Your task to perform on an android device: change keyboard looks Image 0: 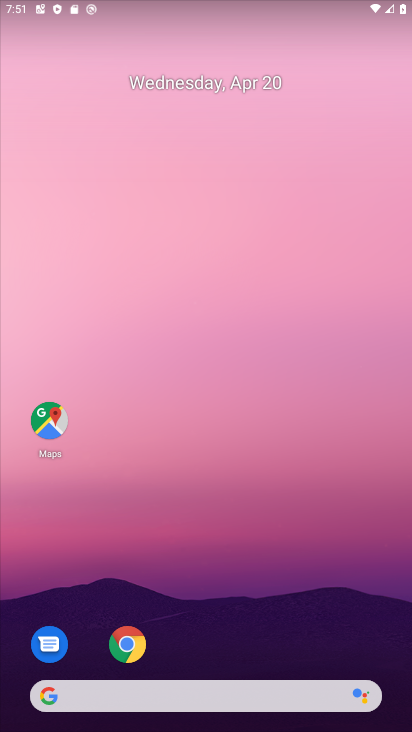
Step 0: drag from (321, 633) to (179, 115)
Your task to perform on an android device: change keyboard looks Image 1: 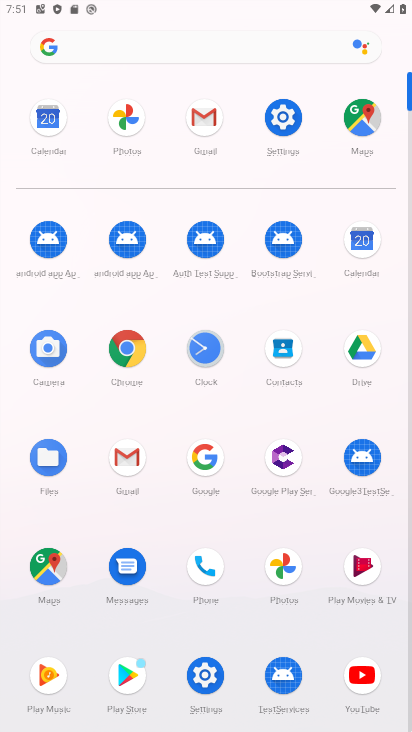
Step 1: click (192, 668)
Your task to perform on an android device: change keyboard looks Image 2: 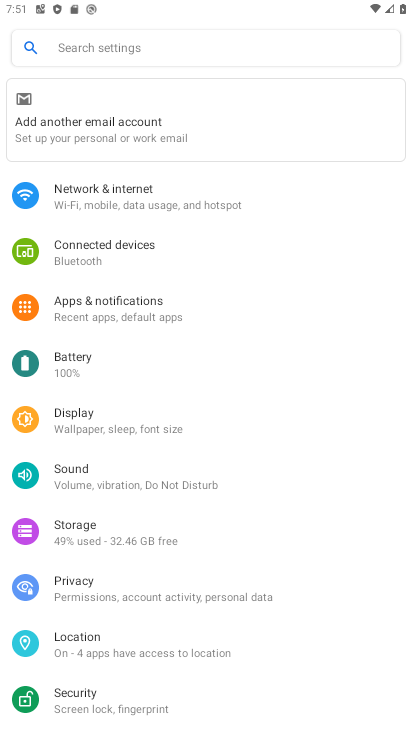
Step 2: drag from (237, 652) to (282, 114)
Your task to perform on an android device: change keyboard looks Image 3: 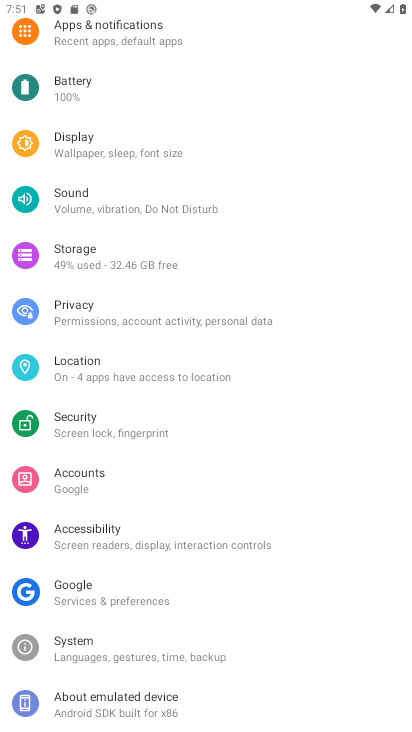
Step 3: click (195, 644)
Your task to perform on an android device: change keyboard looks Image 4: 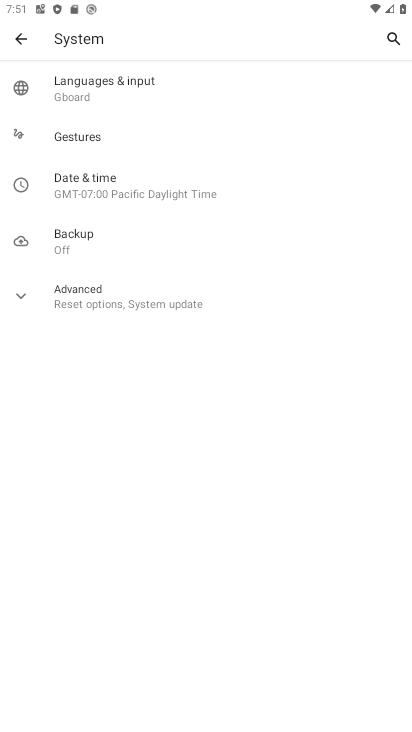
Step 4: click (142, 94)
Your task to perform on an android device: change keyboard looks Image 5: 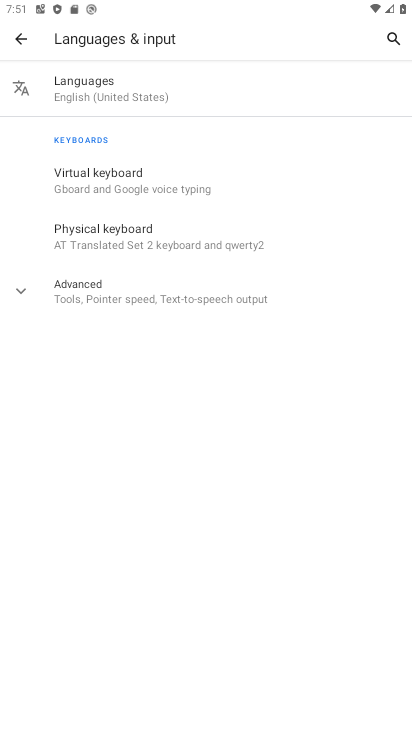
Step 5: click (156, 183)
Your task to perform on an android device: change keyboard looks Image 6: 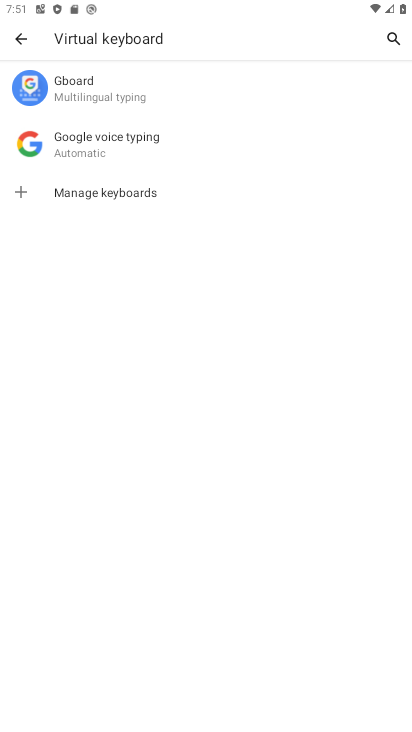
Step 6: click (126, 111)
Your task to perform on an android device: change keyboard looks Image 7: 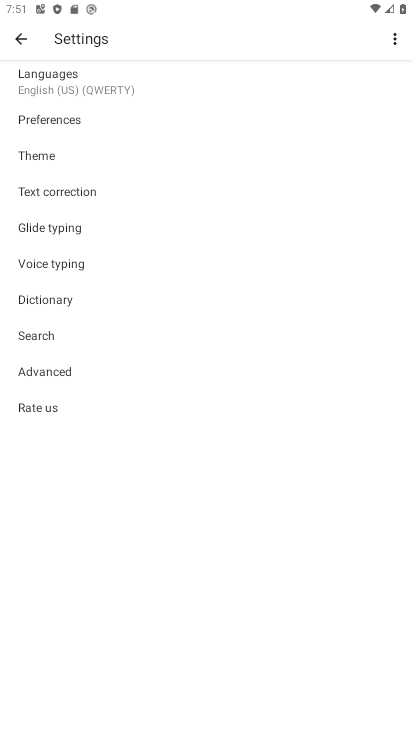
Step 7: click (130, 155)
Your task to perform on an android device: change keyboard looks Image 8: 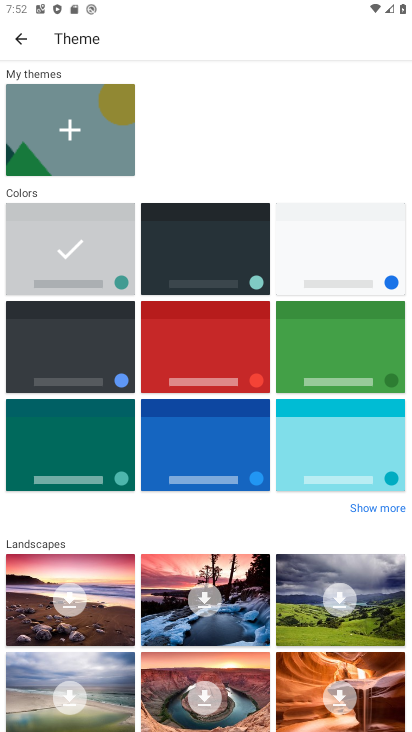
Step 8: click (222, 225)
Your task to perform on an android device: change keyboard looks Image 9: 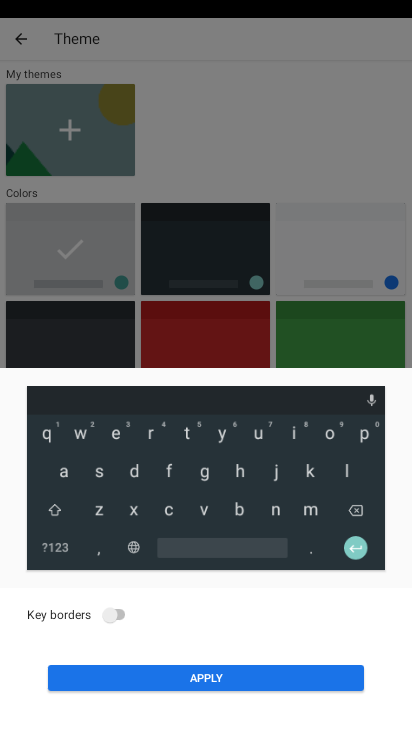
Step 9: click (226, 677)
Your task to perform on an android device: change keyboard looks Image 10: 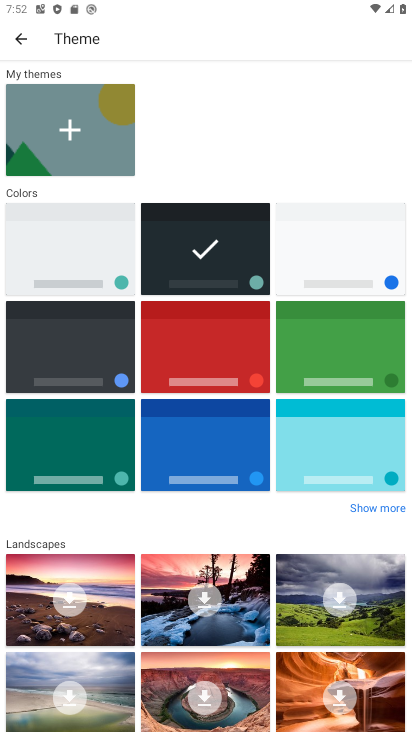
Step 10: task complete